Your task to perform on an android device: turn on location history Image 0: 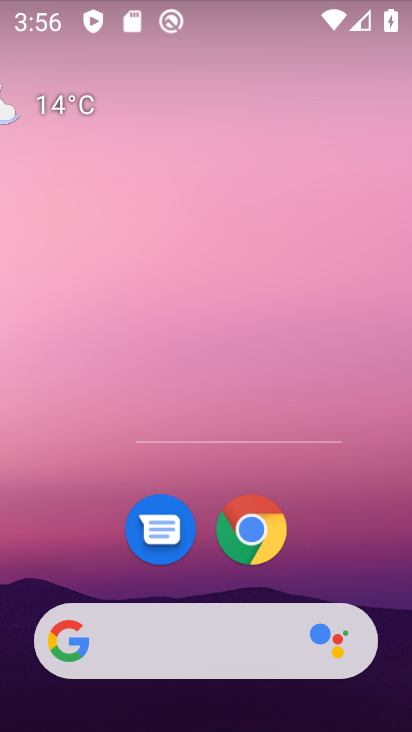
Step 0: press home button
Your task to perform on an android device: turn on location history Image 1: 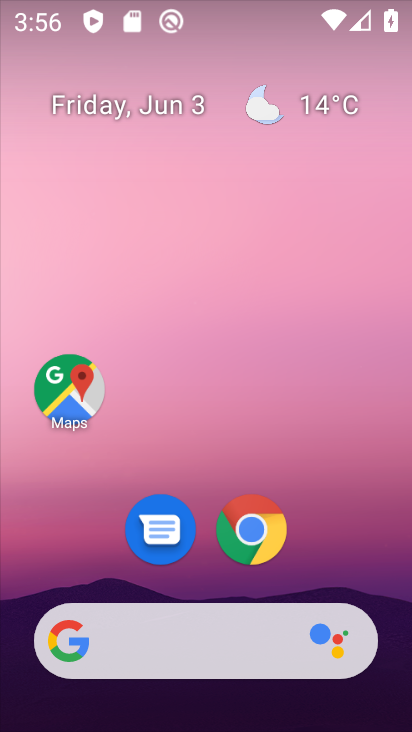
Step 1: drag from (206, 581) to (232, 116)
Your task to perform on an android device: turn on location history Image 2: 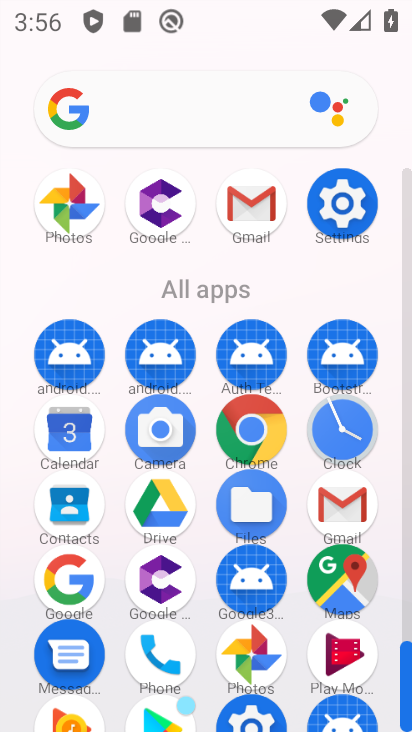
Step 2: click (339, 197)
Your task to perform on an android device: turn on location history Image 3: 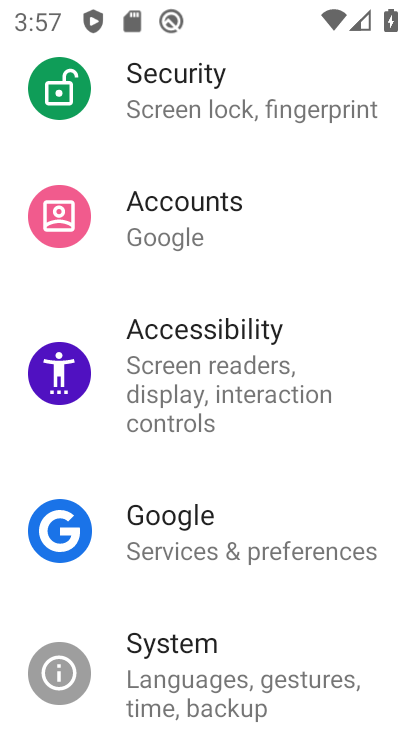
Step 3: drag from (245, 154) to (205, 496)
Your task to perform on an android device: turn on location history Image 4: 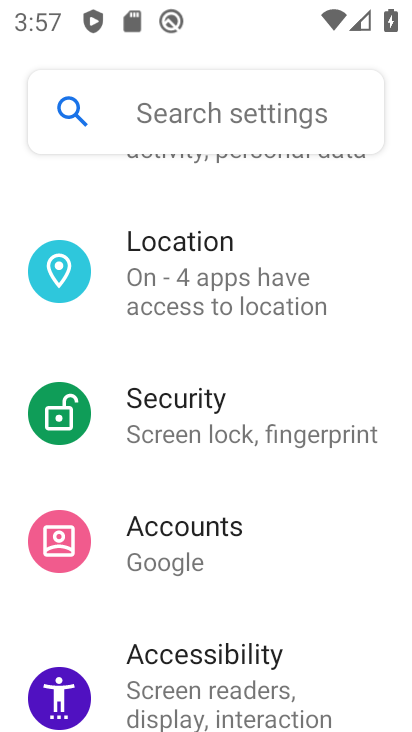
Step 4: click (243, 244)
Your task to perform on an android device: turn on location history Image 5: 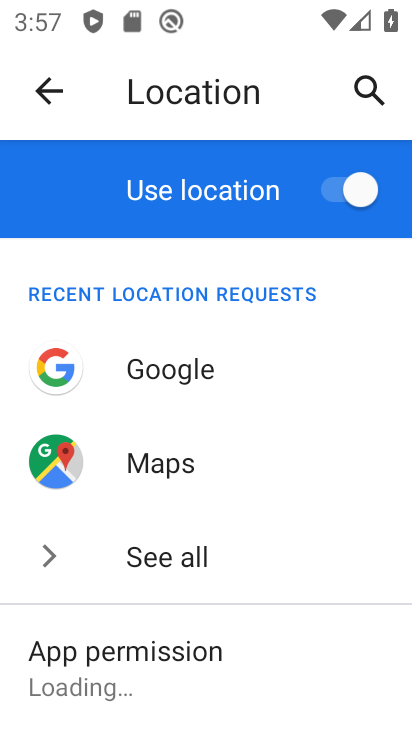
Step 5: drag from (263, 587) to (289, 154)
Your task to perform on an android device: turn on location history Image 6: 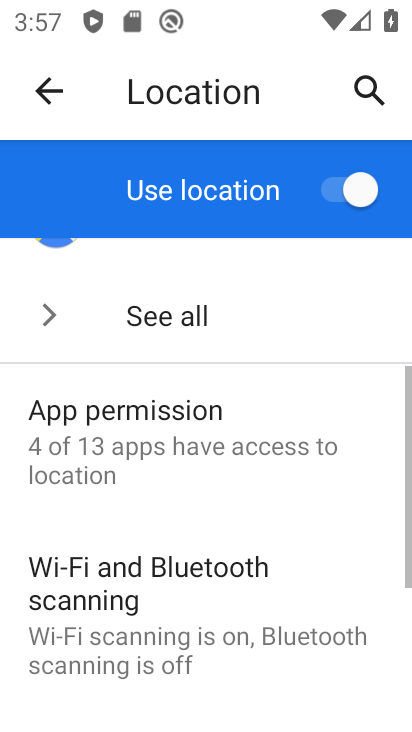
Step 6: drag from (255, 660) to (270, 524)
Your task to perform on an android device: turn on location history Image 7: 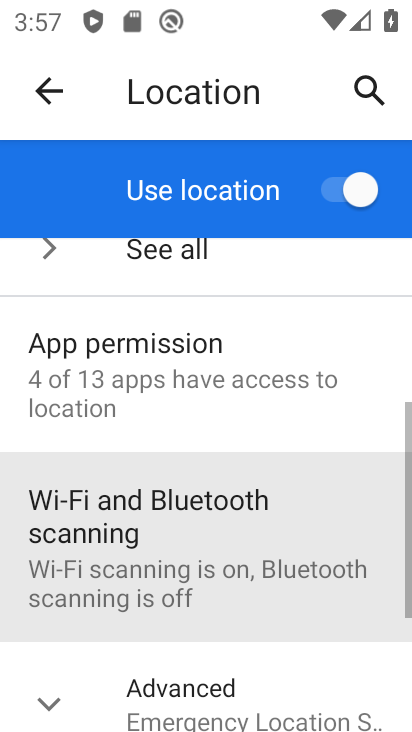
Step 7: drag from (299, 221) to (306, 158)
Your task to perform on an android device: turn on location history Image 8: 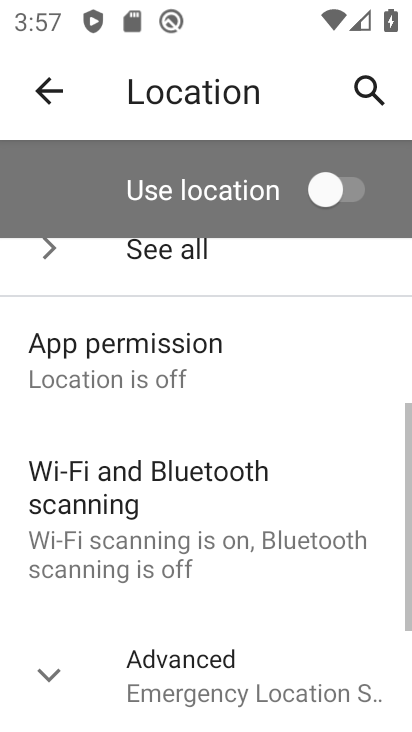
Step 8: click (63, 668)
Your task to perform on an android device: turn on location history Image 9: 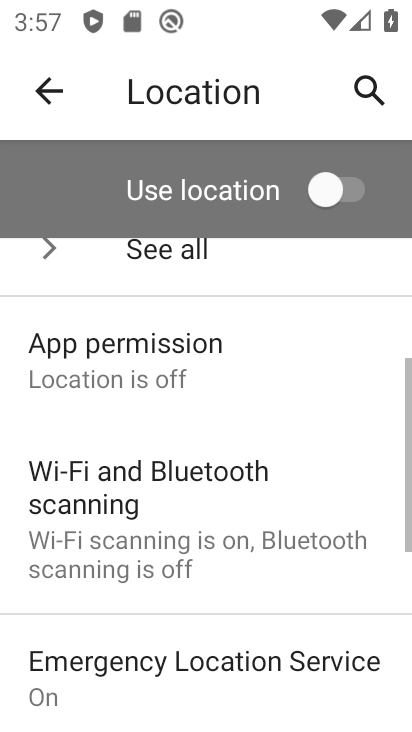
Step 9: drag from (223, 675) to (279, 283)
Your task to perform on an android device: turn on location history Image 10: 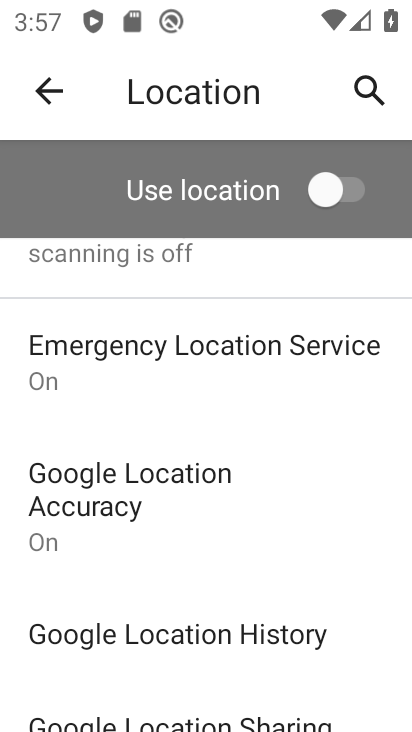
Step 10: click (341, 633)
Your task to perform on an android device: turn on location history Image 11: 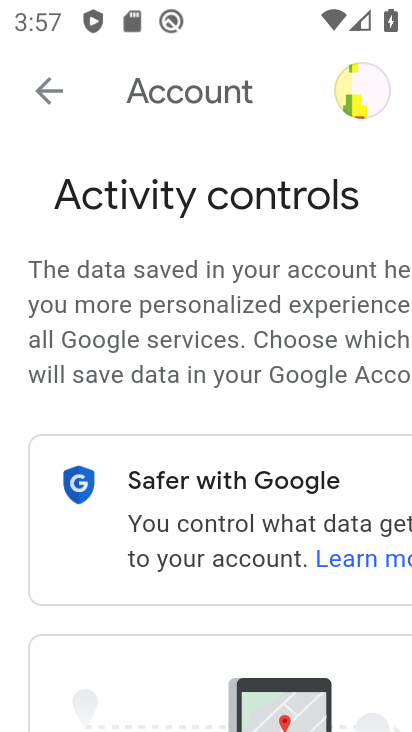
Step 11: task complete